Your task to perform on an android device: search for starred emails in the gmail app Image 0: 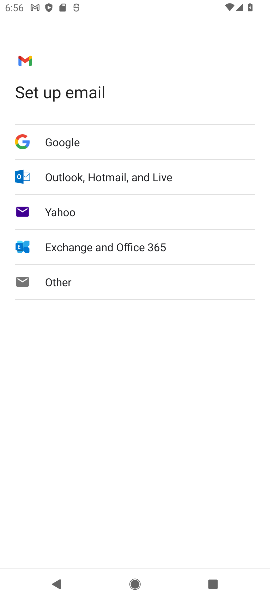
Step 0: press home button
Your task to perform on an android device: search for starred emails in the gmail app Image 1: 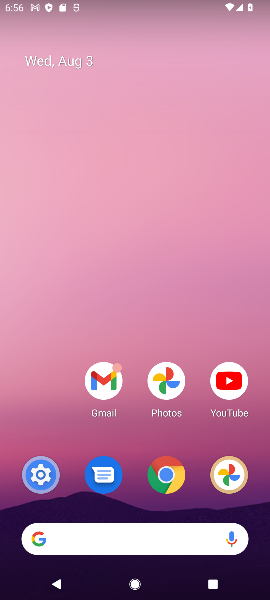
Step 1: drag from (62, 424) to (49, 136)
Your task to perform on an android device: search for starred emails in the gmail app Image 2: 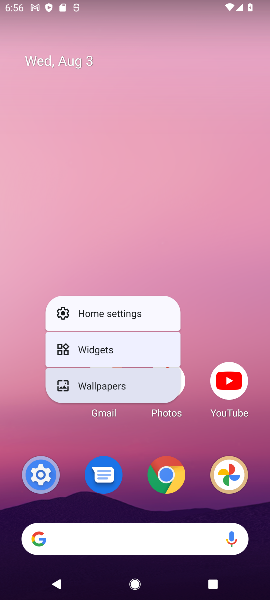
Step 2: click (153, 208)
Your task to perform on an android device: search for starred emails in the gmail app Image 3: 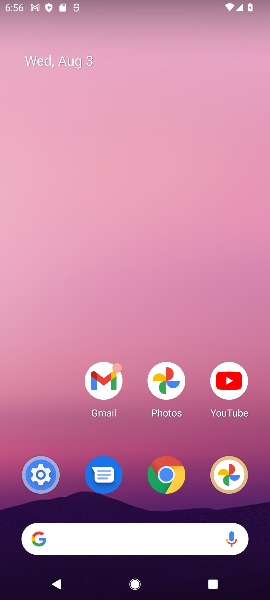
Step 3: drag from (114, 440) to (123, 160)
Your task to perform on an android device: search for starred emails in the gmail app Image 4: 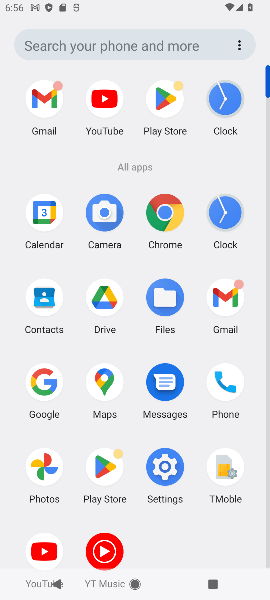
Step 4: click (229, 305)
Your task to perform on an android device: search for starred emails in the gmail app Image 5: 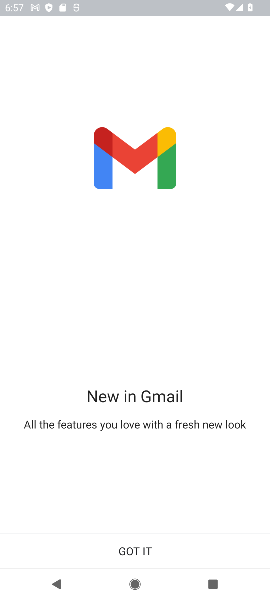
Step 5: click (169, 543)
Your task to perform on an android device: search for starred emails in the gmail app Image 6: 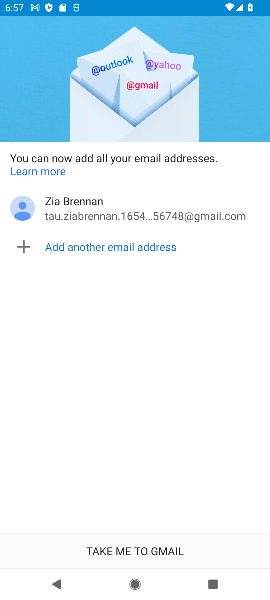
Step 6: click (173, 542)
Your task to perform on an android device: search for starred emails in the gmail app Image 7: 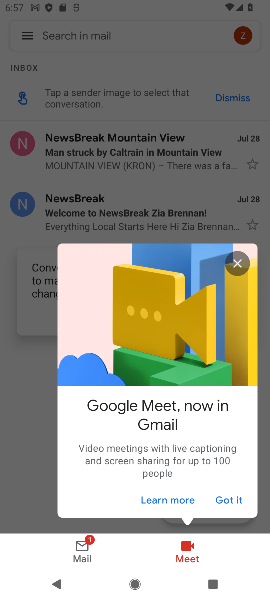
Step 7: click (64, 72)
Your task to perform on an android device: search for starred emails in the gmail app Image 8: 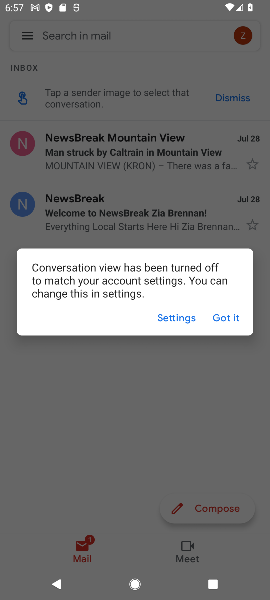
Step 8: click (220, 315)
Your task to perform on an android device: search for starred emails in the gmail app Image 9: 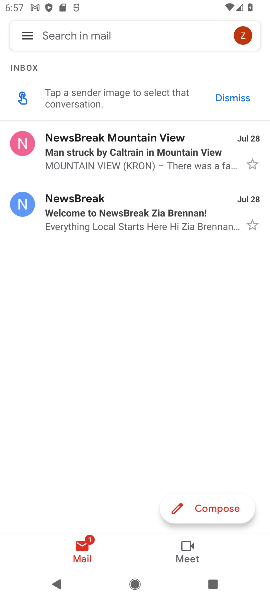
Step 9: click (25, 34)
Your task to perform on an android device: search for starred emails in the gmail app Image 10: 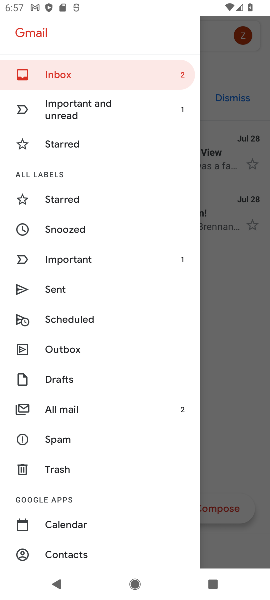
Step 10: click (53, 142)
Your task to perform on an android device: search for starred emails in the gmail app Image 11: 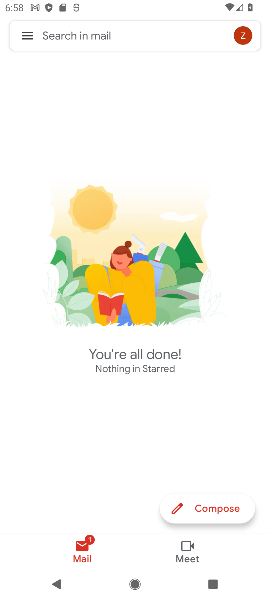
Step 11: task complete